Your task to perform on an android device: turn off airplane mode Image 0: 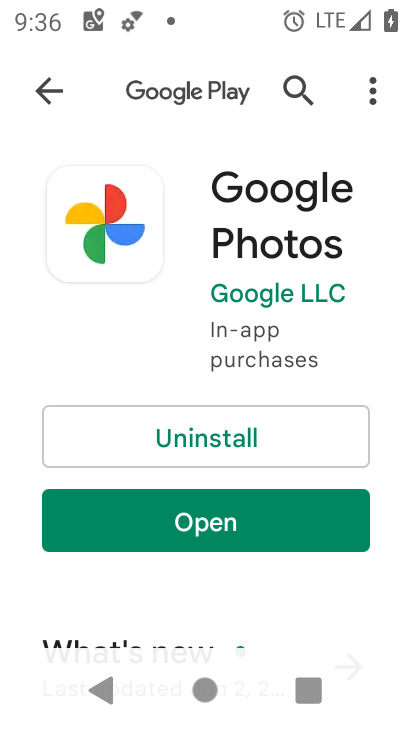
Step 0: press home button
Your task to perform on an android device: turn off airplane mode Image 1: 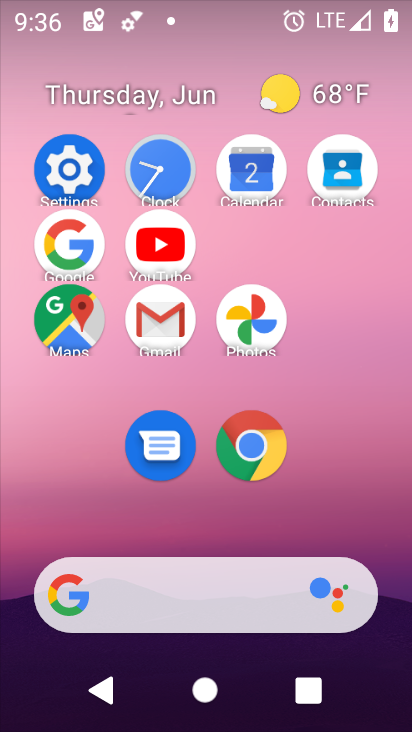
Step 1: click (93, 172)
Your task to perform on an android device: turn off airplane mode Image 2: 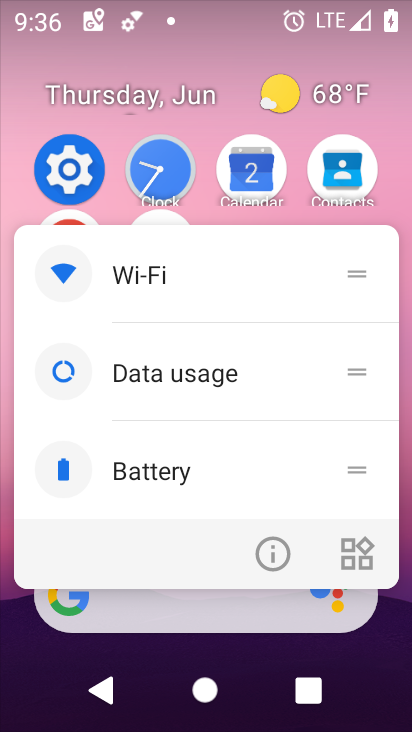
Step 2: click (80, 163)
Your task to perform on an android device: turn off airplane mode Image 3: 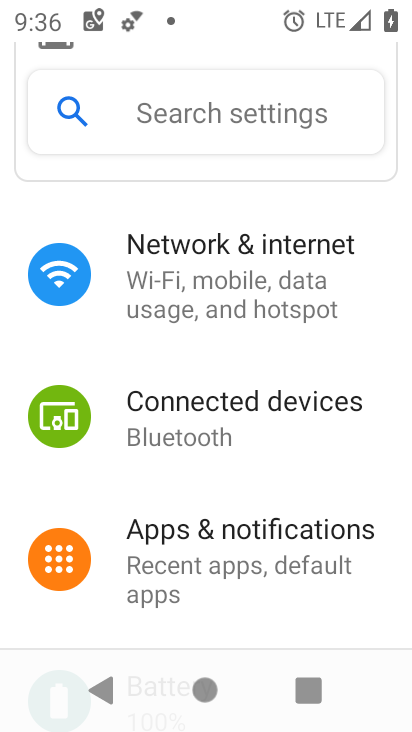
Step 3: click (305, 279)
Your task to perform on an android device: turn off airplane mode Image 4: 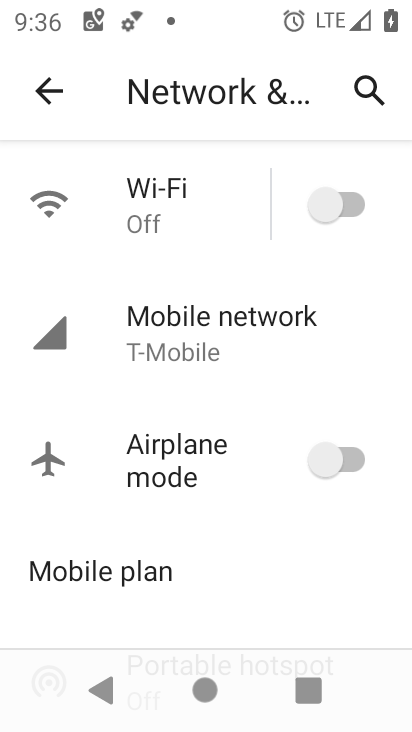
Step 4: task complete